Your task to perform on an android device: Open the calendar app, open the side menu, and click the "Day" option Image 0: 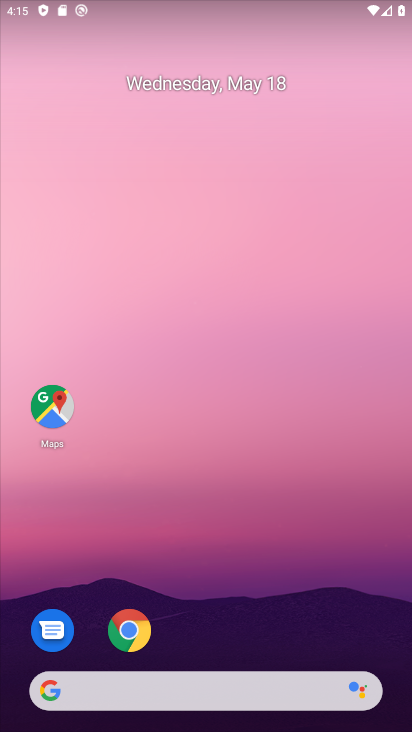
Step 0: drag from (263, 672) to (220, 2)
Your task to perform on an android device: Open the calendar app, open the side menu, and click the "Day" option Image 1: 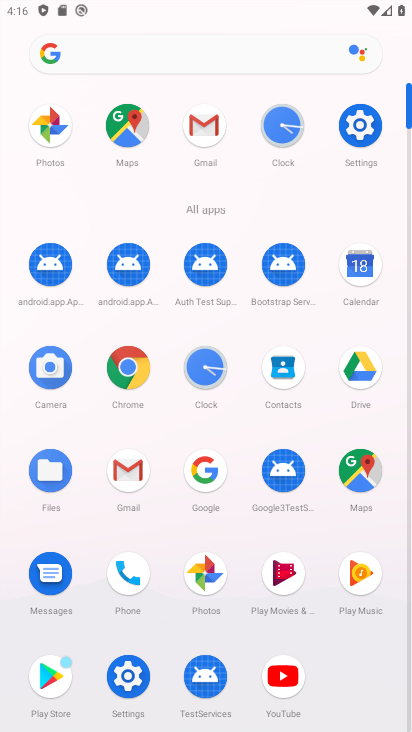
Step 1: click (355, 282)
Your task to perform on an android device: Open the calendar app, open the side menu, and click the "Day" option Image 2: 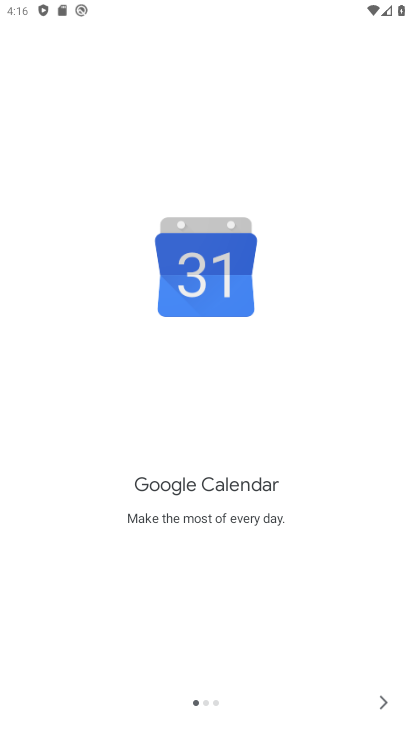
Step 2: click (381, 690)
Your task to perform on an android device: Open the calendar app, open the side menu, and click the "Day" option Image 3: 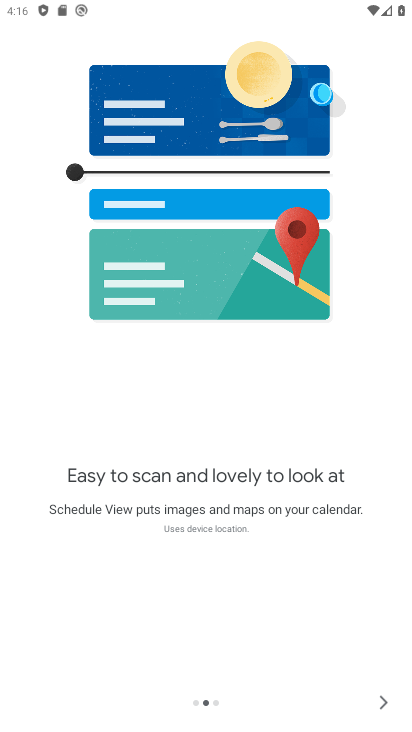
Step 3: click (380, 687)
Your task to perform on an android device: Open the calendar app, open the side menu, and click the "Day" option Image 4: 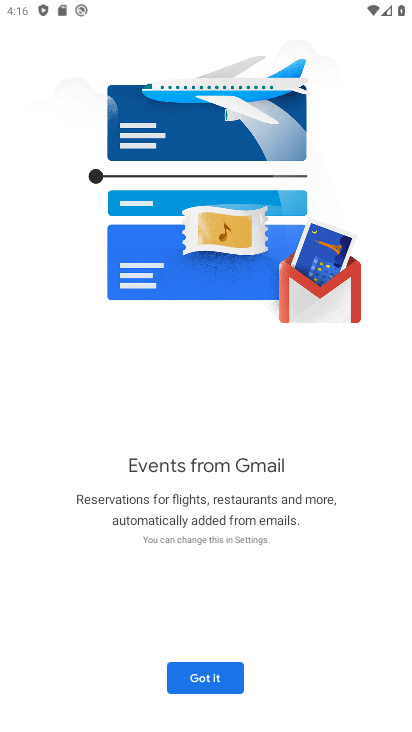
Step 4: click (236, 672)
Your task to perform on an android device: Open the calendar app, open the side menu, and click the "Day" option Image 5: 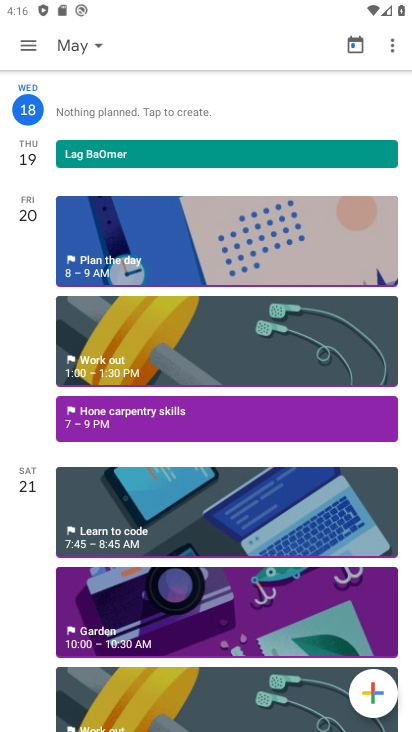
Step 5: click (22, 42)
Your task to perform on an android device: Open the calendar app, open the side menu, and click the "Day" option Image 6: 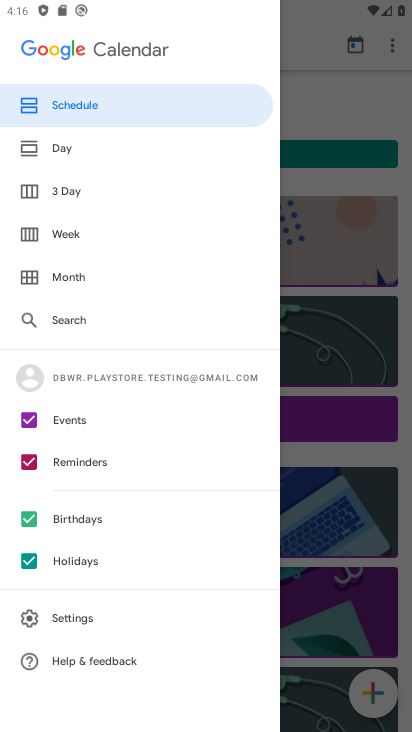
Step 6: click (68, 143)
Your task to perform on an android device: Open the calendar app, open the side menu, and click the "Day" option Image 7: 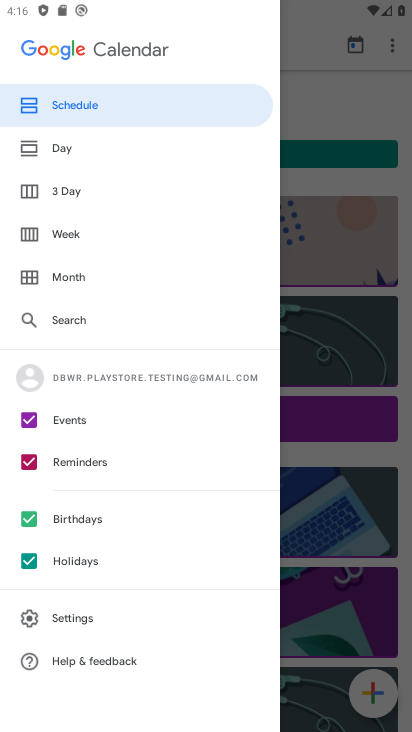
Step 7: task complete